Your task to perform on an android device: Open notification settings Image 0: 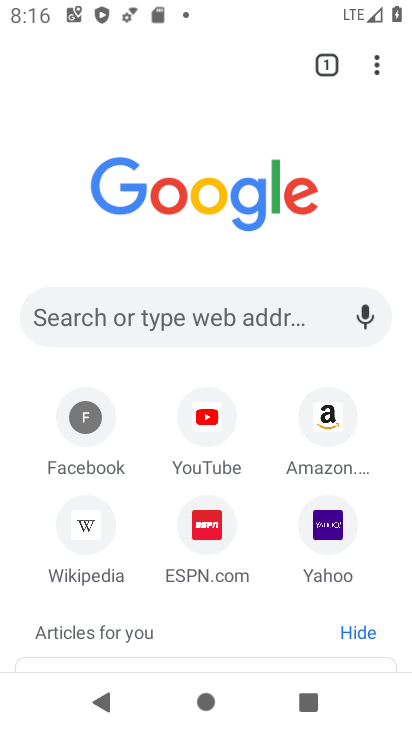
Step 0: press back button
Your task to perform on an android device: Open notification settings Image 1: 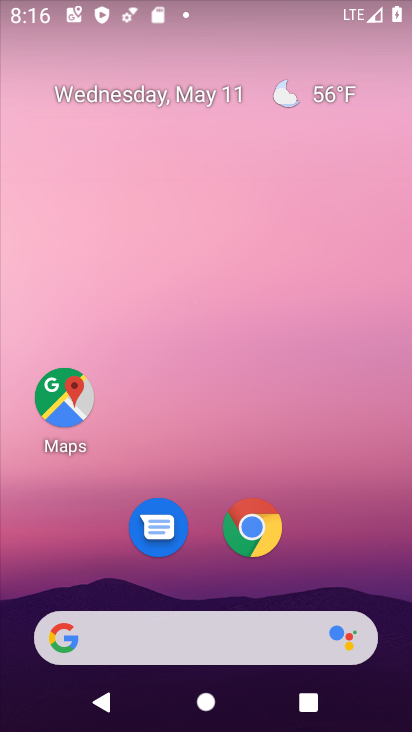
Step 1: drag from (153, 609) to (255, 111)
Your task to perform on an android device: Open notification settings Image 2: 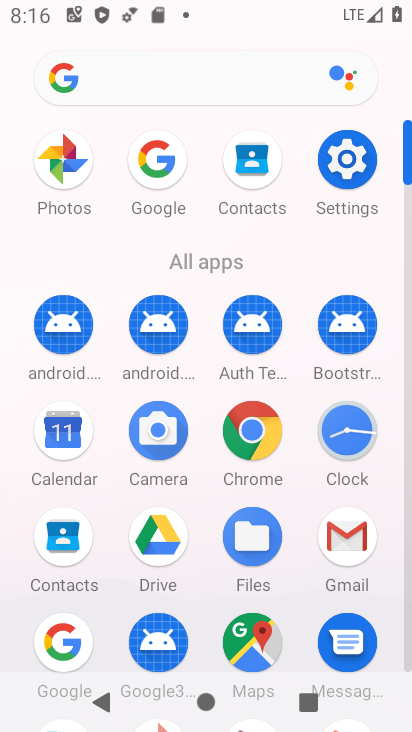
Step 2: click (349, 182)
Your task to perform on an android device: Open notification settings Image 3: 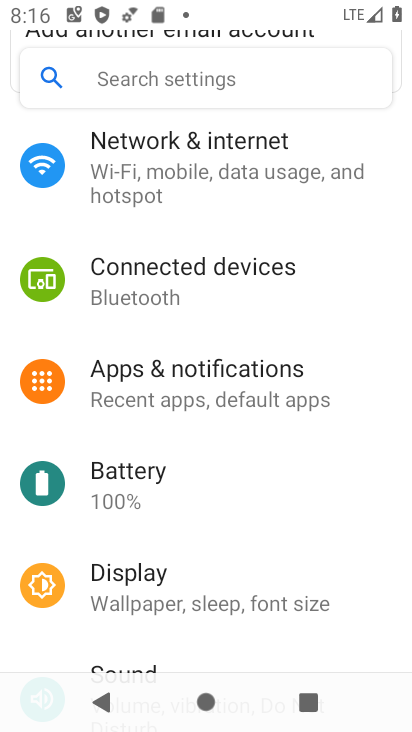
Step 3: click (249, 384)
Your task to perform on an android device: Open notification settings Image 4: 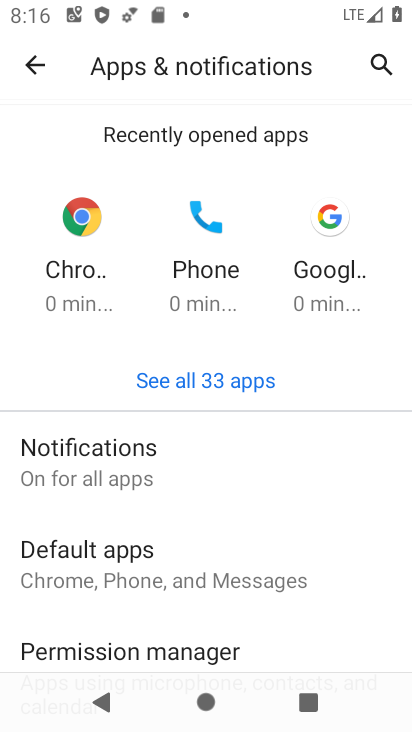
Step 4: click (229, 482)
Your task to perform on an android device: Open notification settings Image 5: 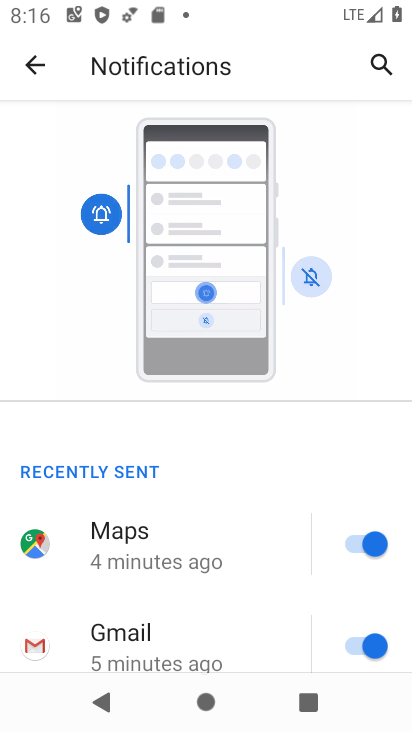
Step 5: task complete